Your task to perform on an android device: add a contact in the contacts app Image 0: 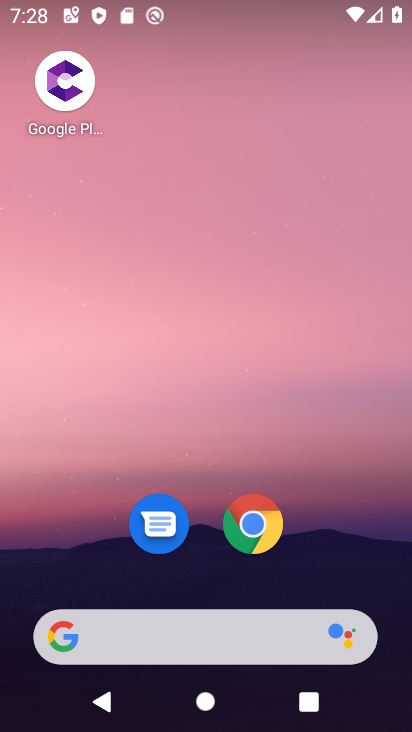
Step 0: press home button
Your task to perform on an android device: add a contact in the contacts app Image 1: 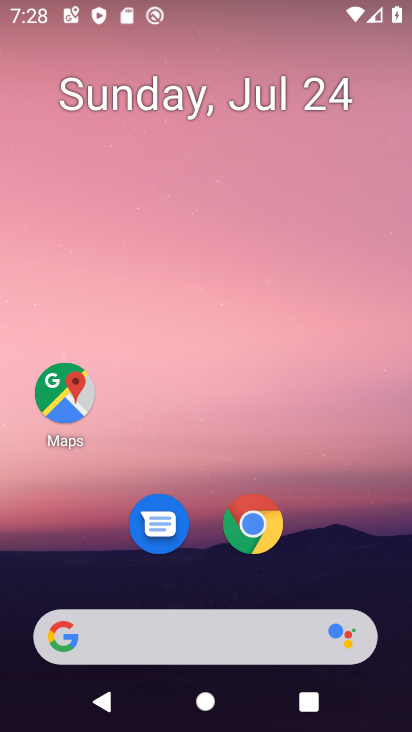
Step 1: drag from (251, 615) to (295, 82)
Your task to perform on an android device: add a contact in the contacts app Image 2: 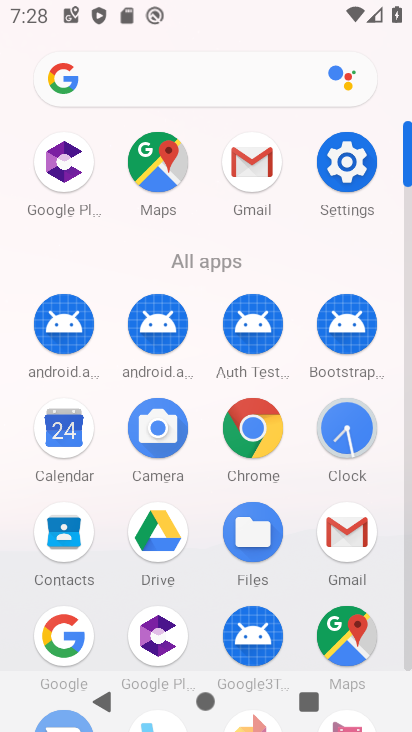
Step 2: click (50, 539)
Your task to perform on an android device: add a contact in the contacts app Image 3: 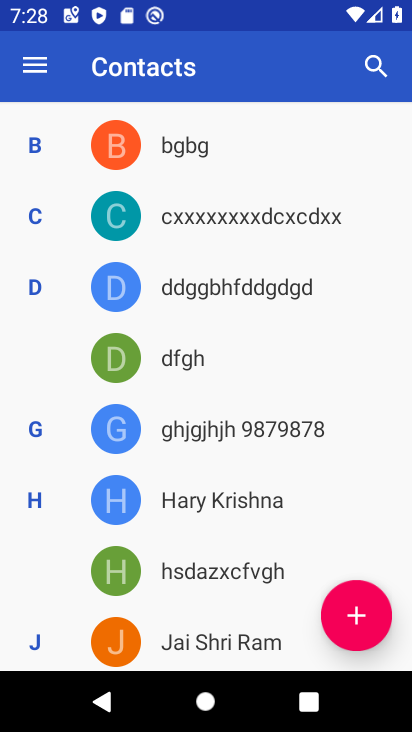
Step 3: click (376, 621)
Your task to perform on an android device: add a contact in the contacts app Image 4: 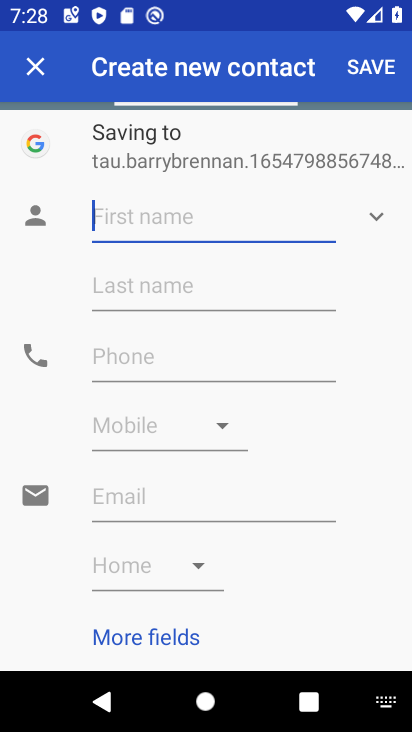
Step 4: click (94, 214)
Your task to perform on an android device: add a contact in the contacts app Image 5: 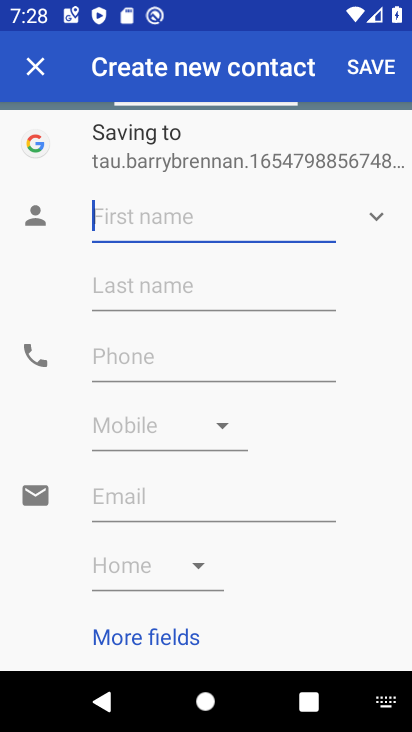
Step 5: type "bhyyggjjh"
Your task to perform on an android device: add a contact in the contacts app Image 6: 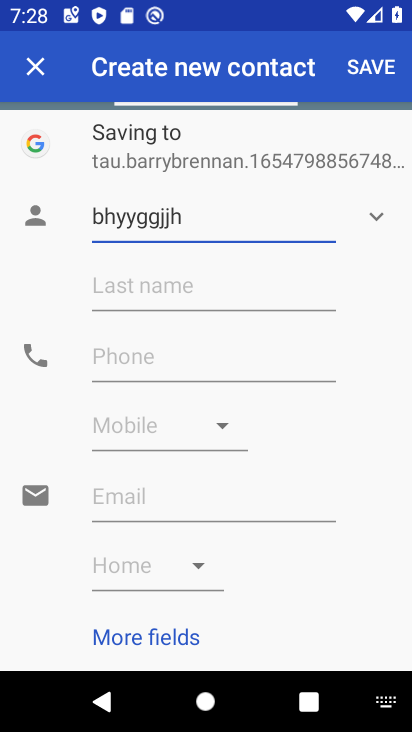
Step 6: click (113, 351)
Your task to perform on an android device: add a contact in the contacts app Image 7: 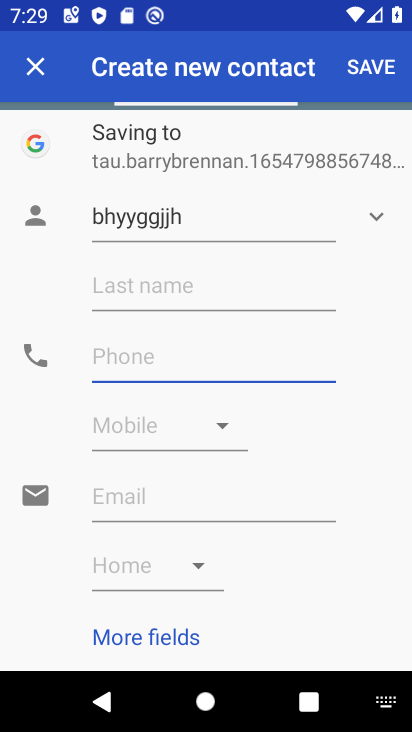
Step 7: type "1665577977"
Your task to perform on an android device: add a contact in the contacts app Image 8: 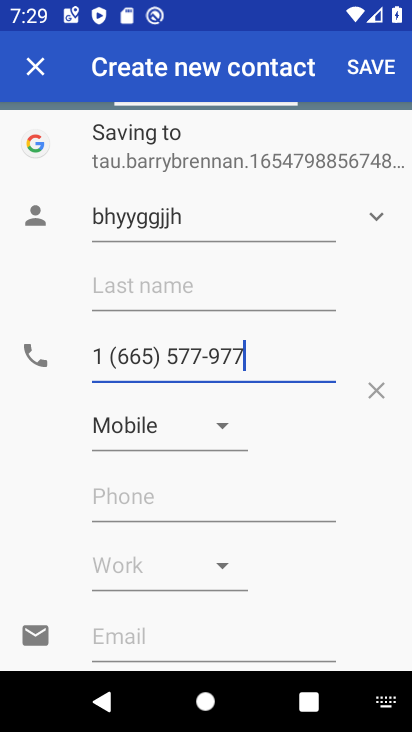
Step 8: click (370, 64)
Your task to perform on an android device: add a contact in the contacts app Image 9: 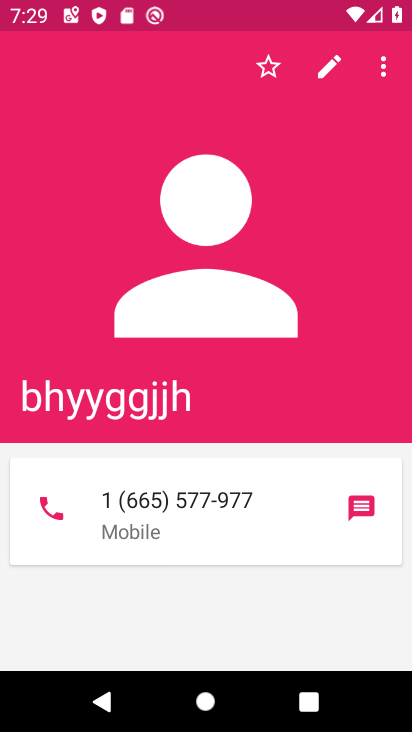
Step 9: task complete